Your task to perform on an android device: uninstall "DoorDash - Food Delivery" Image 0: 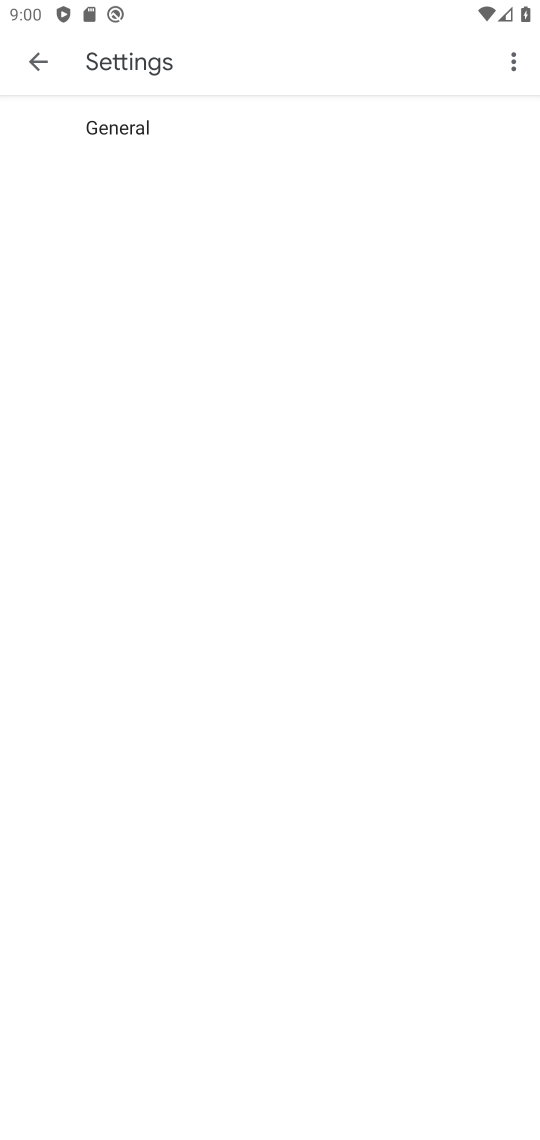
Step 0: press home button
Your task to perform on an android device: uninstall "DoorDash - Food Delivery" Image 1: 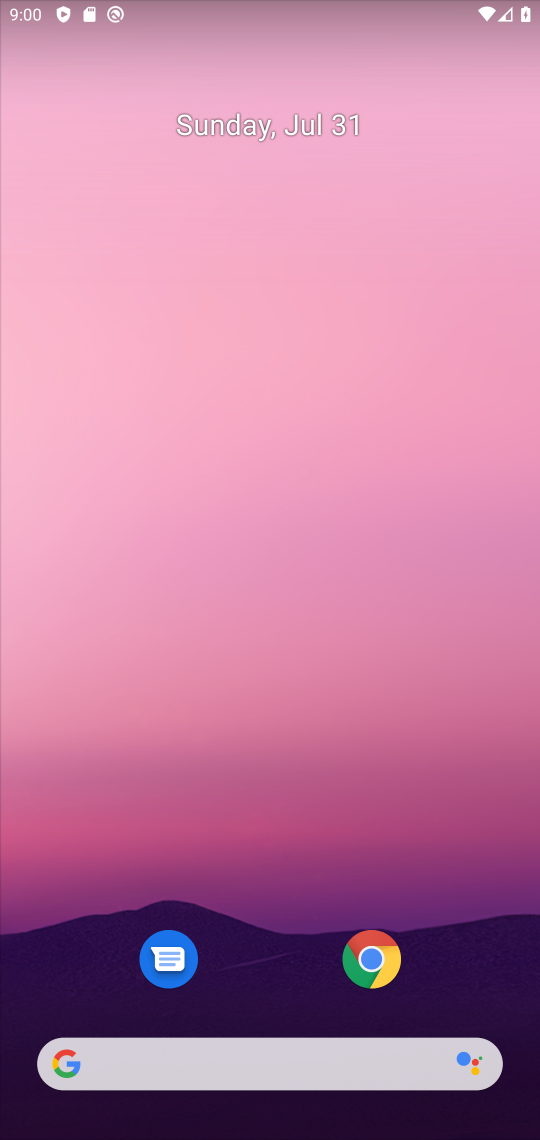
Step 1: drag from (455, 935) to (419, 88)
Your task to perform on an android device: uninstall "DoorDash - Food Delivery" Image 2: 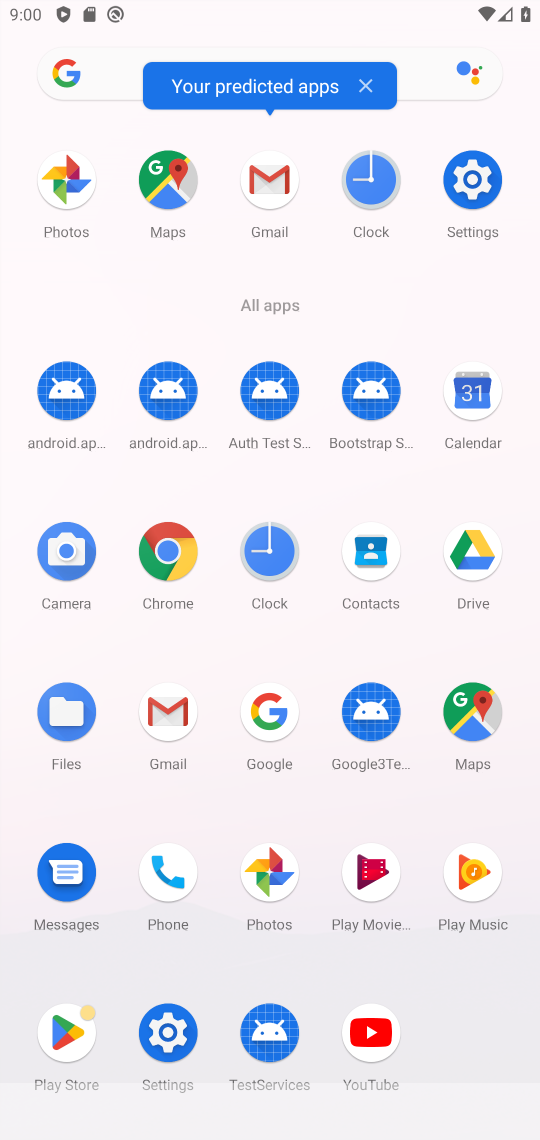
Step 2: click (63, 1030)
Your task to perform on an android device: uninstall "DoorDash - Food Delivery" Image 3: 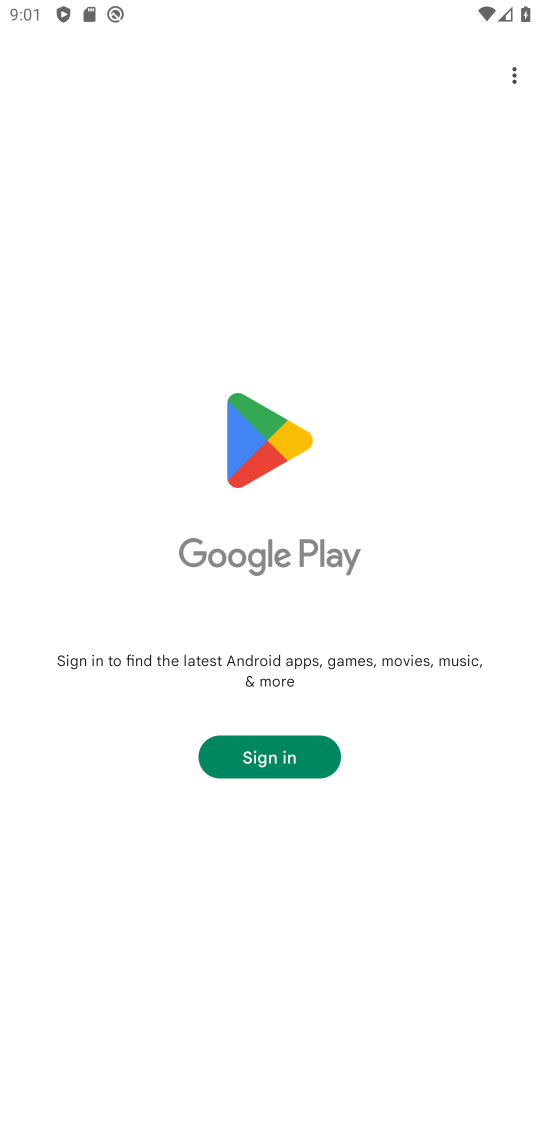
Step 3: task complete